Your task to perform on an android device: clear all cookies in the chrome app Image 0: 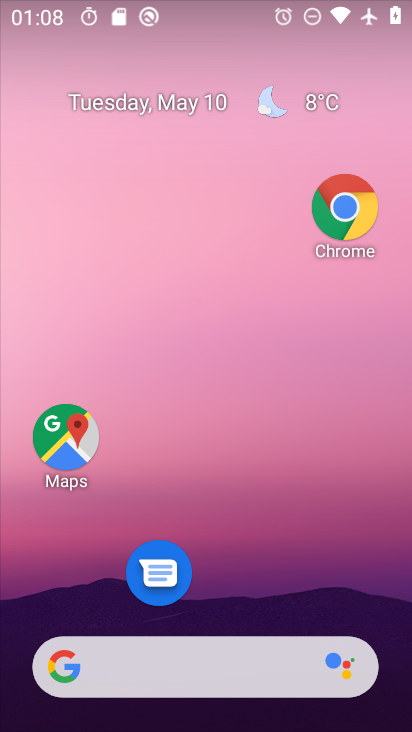
Step 0: click (343, 204)
Your task to perform on an android device: clear all cookies in the chrome app Image 1: 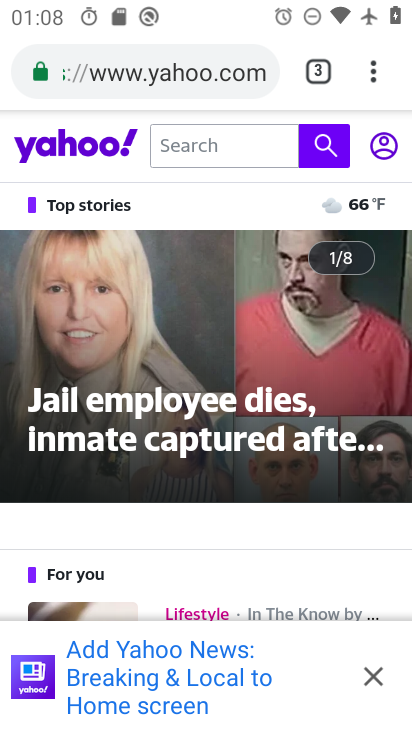
Step 1: drag from (375, 63) to (179, 165)
Your task to perform on an android device: clear all cookies in the chrome app Image 2: 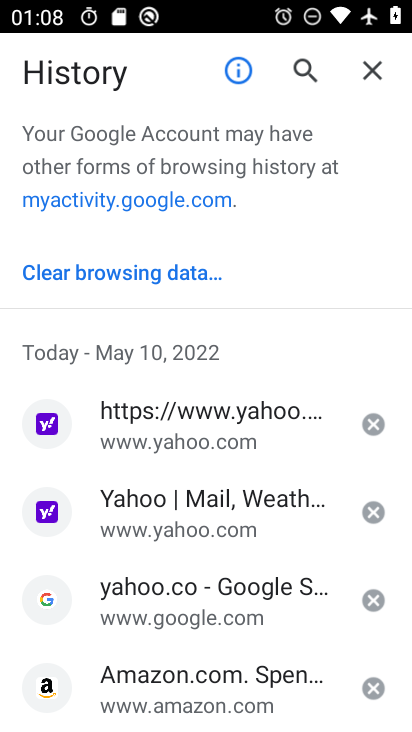
Step 2: click (172, 275)
Your task to perform on an android device: clear all cookies in the chrome app Image 3: 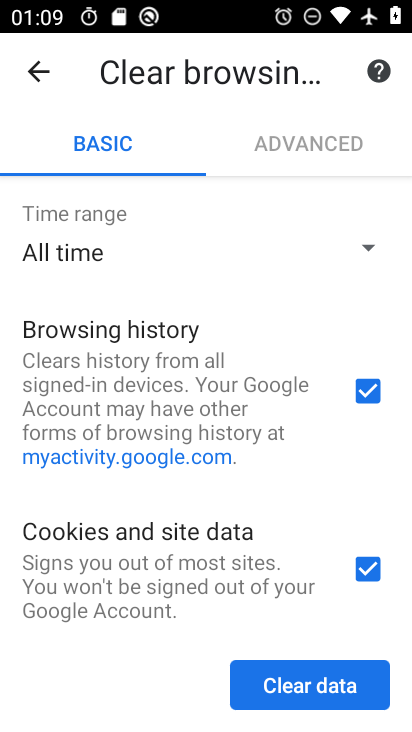
Step 3: click (299, 244)
Your task to perform on an android device: clear all cookies in the chrome app Image 4: 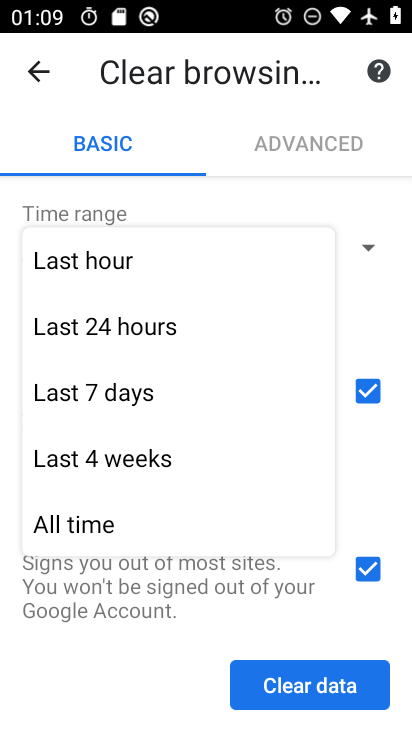
Step 4: click (92, 515)
Your task to perform on an android device: clear all cookies in the chrome app Image 5: 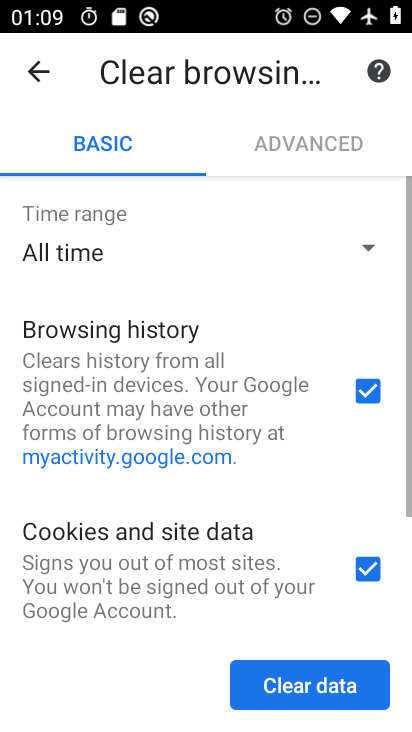
Step 5: drag from (262, 485) to (292, 213)
Your task to perform on an android device: clear all cookies in the chrome app Image 6: 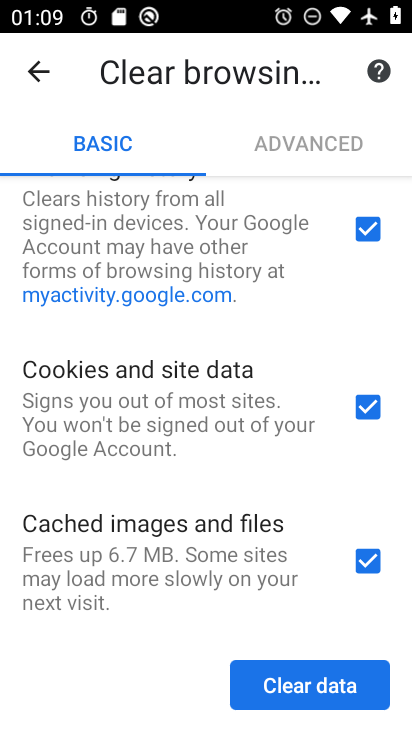
Step 6: click (301, 682)
Your task to perform on an android device: clear all cookies in the chrome app Image 7: 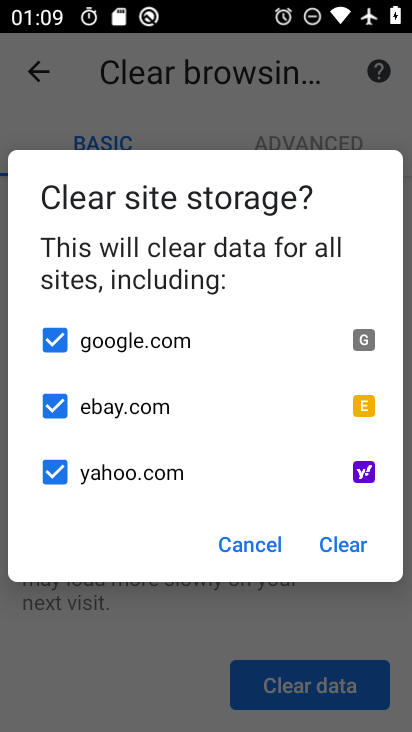
Step 7: click (331, 556)
Your task to perform on an android device: clear all cookies in the chrome app Image 8: 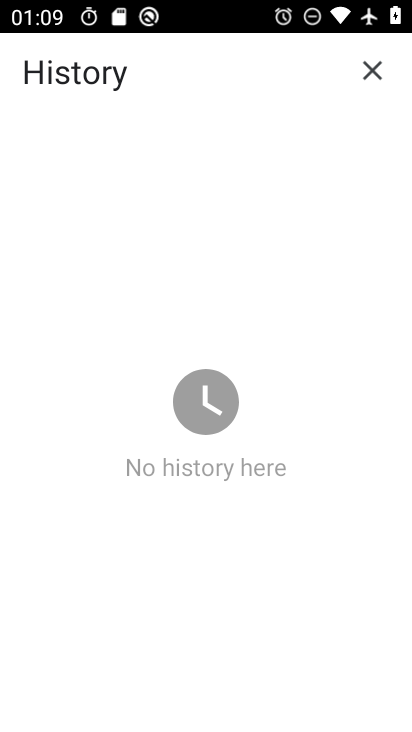
Step 8: task complete